Your task to perform on an android device: make emails show in primary in the gmail app Image 0: 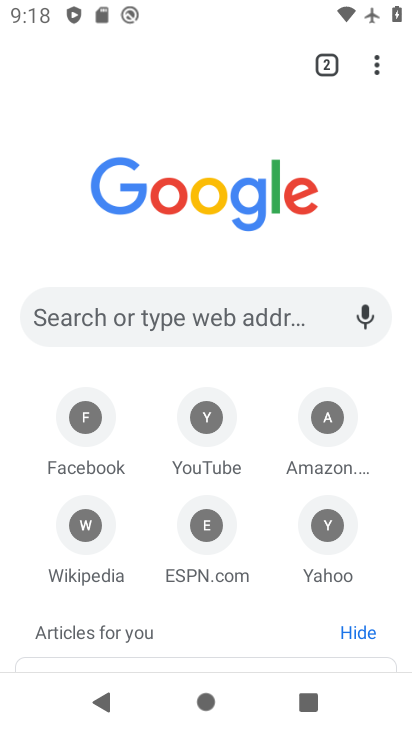
Step 0: press home button
Your task to perform on an android device: make emails show in primary in the gmail app Image 1: 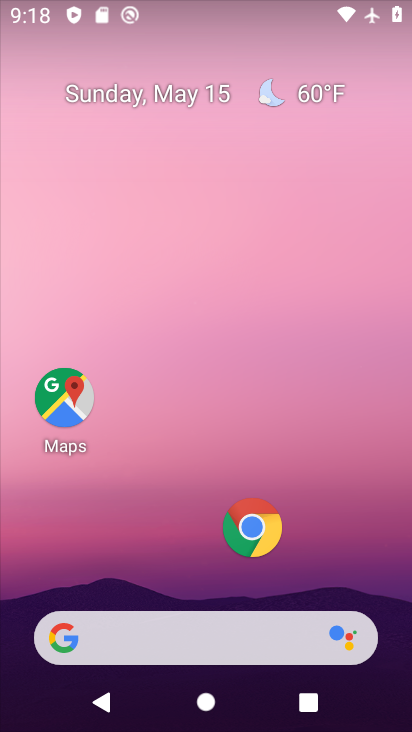
Step 1: drag from (199, 588) to (200, 60)
Your task to perform on an android device: make emails show in primary in the gmail app Image 2: 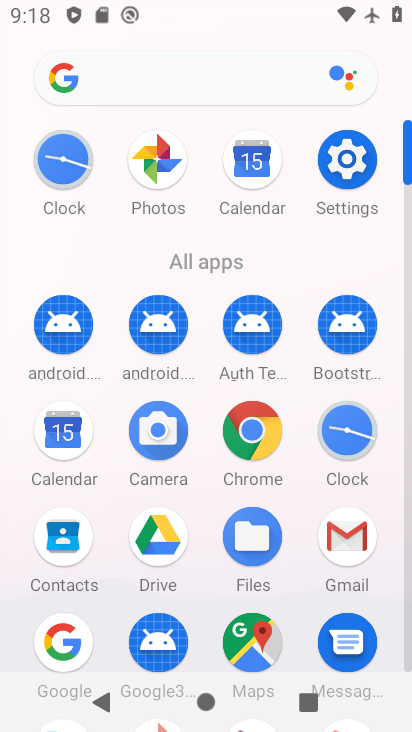
Step 2: click (346, 530)
Your task to perform on an android device: make emails show in primary in the gmail app Image 3: 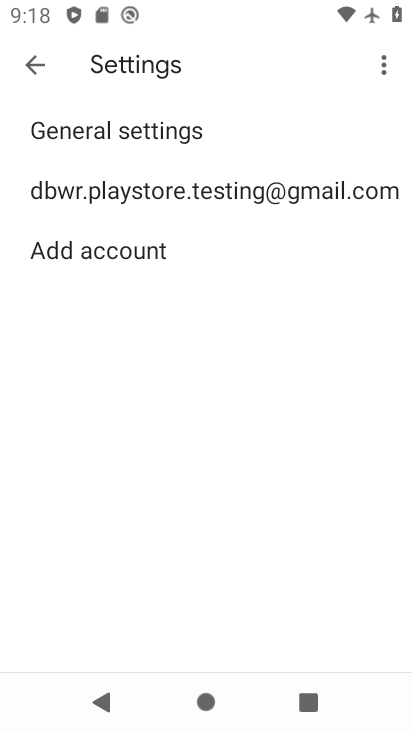
Step 3: click (195, 190)
Your task to perform on an android device: make emails show in primary in the gmail app Image 4: 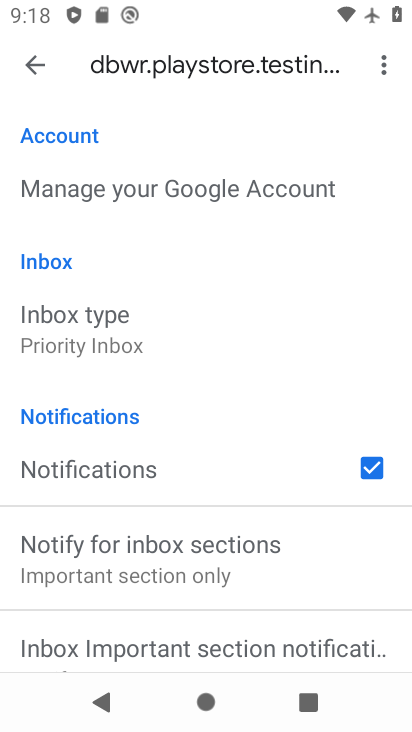
Step 4: click (159, 323)
Your task to perform on an android device: make emails show in primary in the gmail app Image 5: 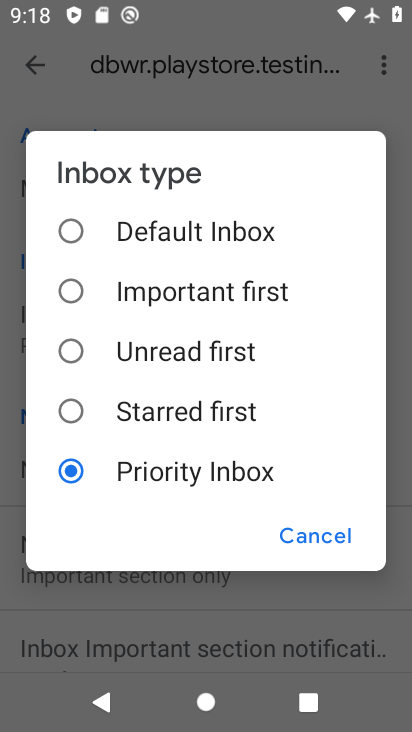
Step 5: click (72, 236)
Your task to perform on an android device: make emails show in primary in the gmail app Image 6: 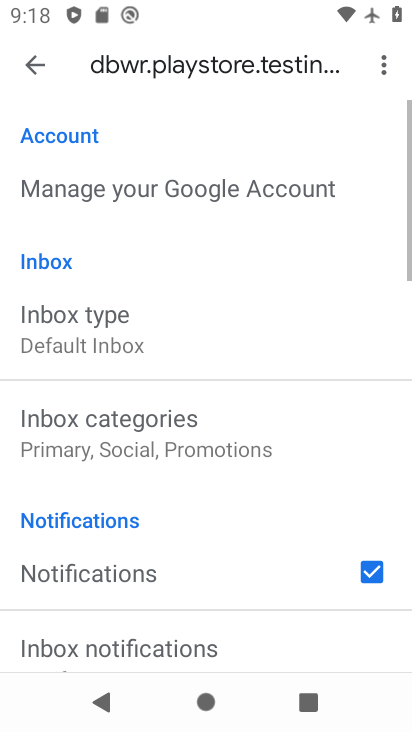
Step 6: task complete